Your task to perform on an android device: Open Android settings Image 0: 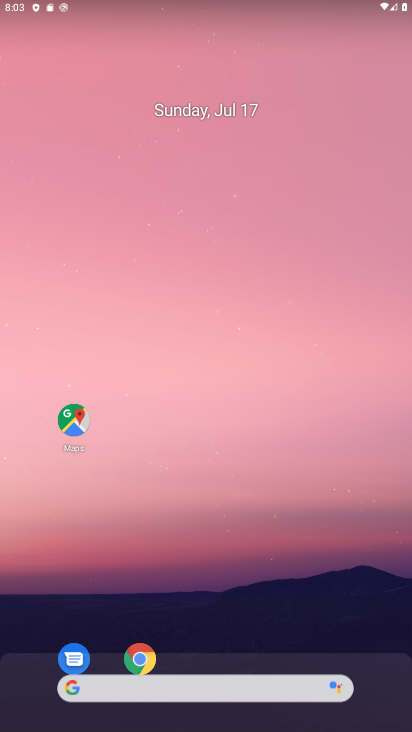
Step 0: drag from (223, 704) to (300, 206)
Your task to perform on an android device: Open Android settings Image 1: 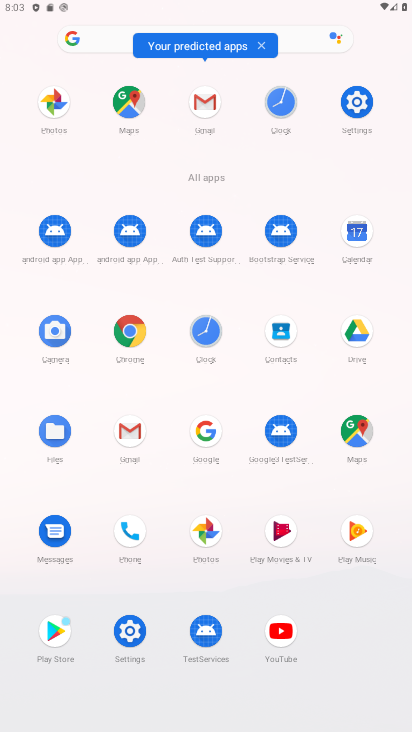
Step 1: click (360, 103)
Your task to perform on an android device: Open Android settings Image 2: 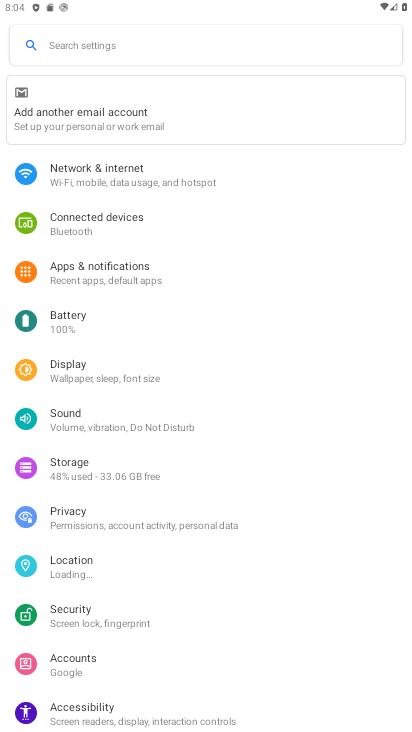
Step 2: task complete